Your task to perform on an android device: Go to battery settings Image 0: 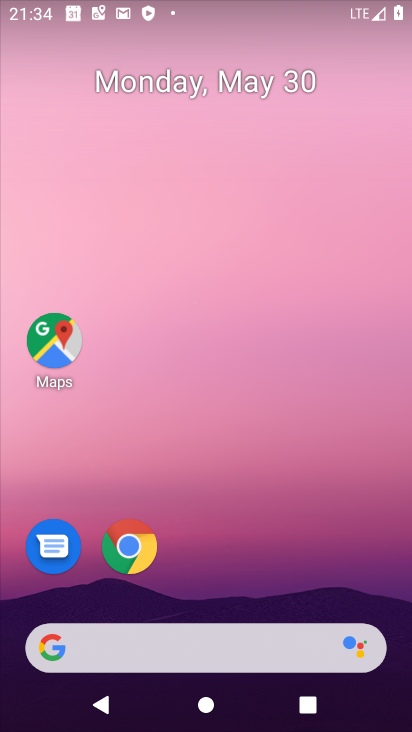
Step 0: drag from (334, 567) to (319, 121)
Your task to perform on an android device: Go to battery settings Image 1: 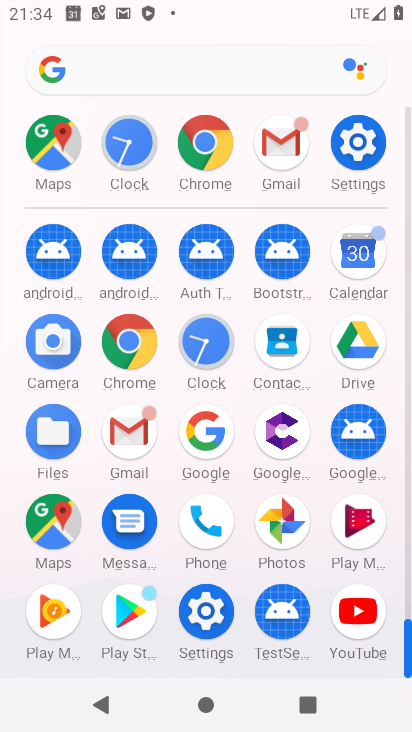
Step 1: click (365, 144)
Your task to perform on an android device: Go to battery settings Image 2: 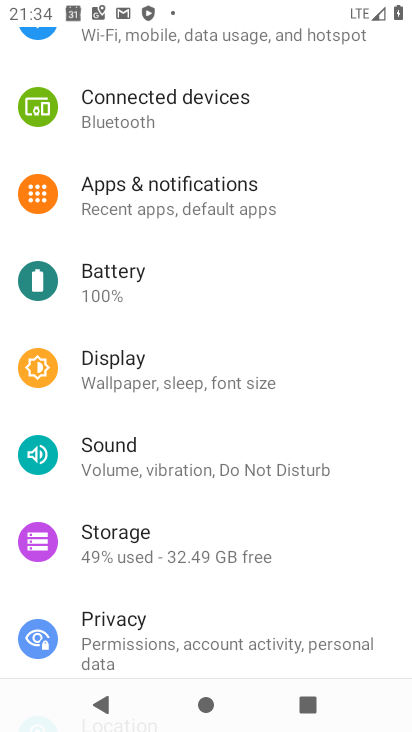
Step 2: click (166, 292)
Your task to perform on an android device: Go to battery settings Image 3: 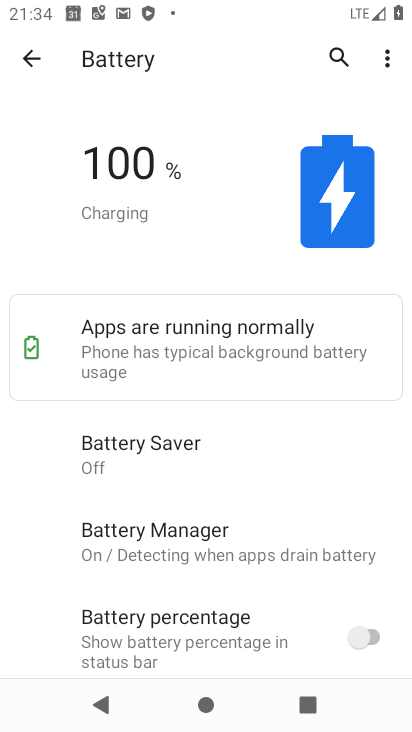
Step 3: task complete